Your task to perform on an android device: View the shopping cart on newegg.com. Search for apple airpods pro on newegg.com, select the first entry, and add it to the cart. Image 0: 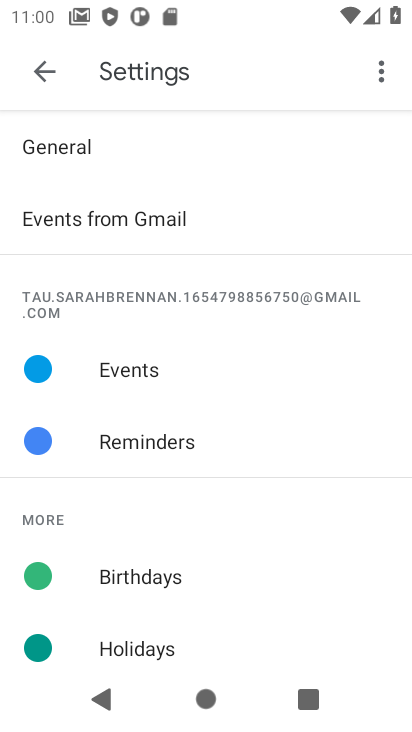
Step 0: press home button
Your task to perform on an android device: View the shopping cart on newegg.com. Search for apple airpods pro on newegg.com, select the first entry, and add it to the cart. Image 1: 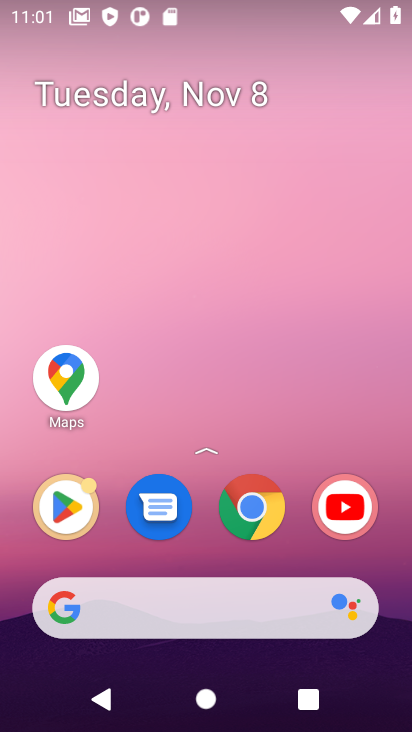
Step 1: click (240, 503)
Your task to perform on an android device: View the shopping cart on newegg.com. Search for apple airpods pro on newegg.com, select the first entry, and add it to the cart. Image 2: 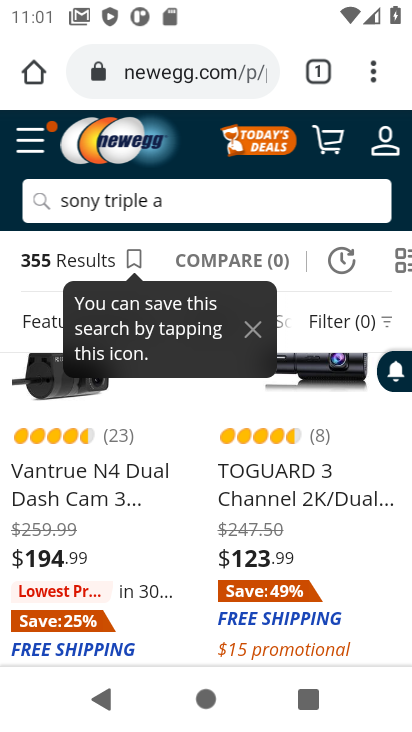
Step 2: click (212, 198)
Your task to perform on an android device: View the shopping cart on newegg.com. Search for apple airpods pro on newegg.com, select the first entry, and add it to the cart. Image 3: 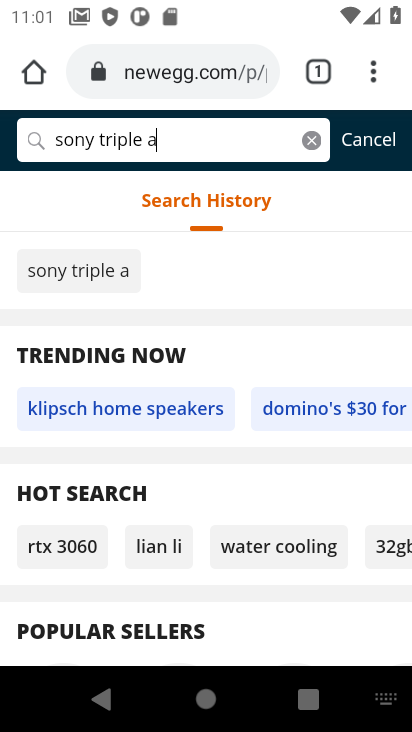
Step 3: click (311, 139)
Your task to perform on an android device: View the shopping cart on newegg.com. Search for apple airpods pro on newegg.com, select the first entry, and add it to the cart. Image 4: 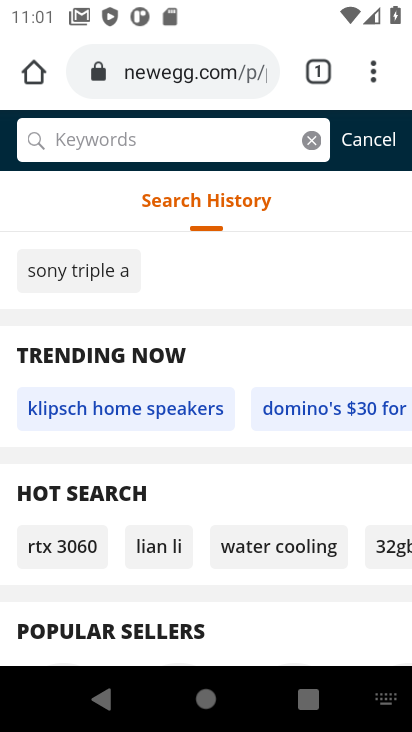
Step 4: type "apple airpods pro"
Your task to perform on an android device: View the shopping cart on newegg.com. Search for apple airpods pro on newegg.com, select the first entry, and add it to the cart. Image 5: 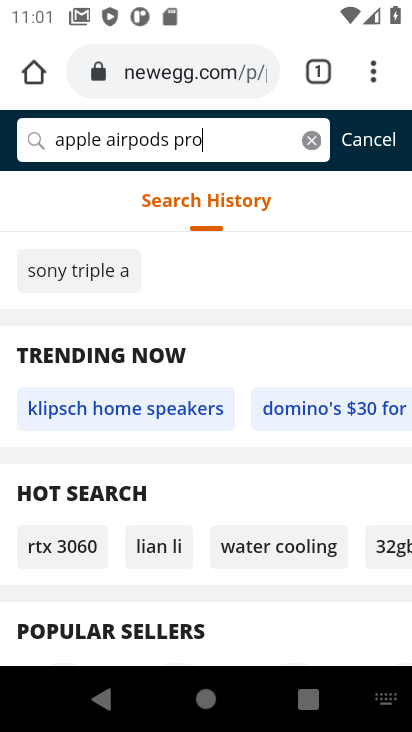
Step 5: press enter
Your task to perform on an android device: View the shopping cart on newegg.com. Search for apple airpods pro on newegg.com, select the first entry, and add it to the cart. Image 6: 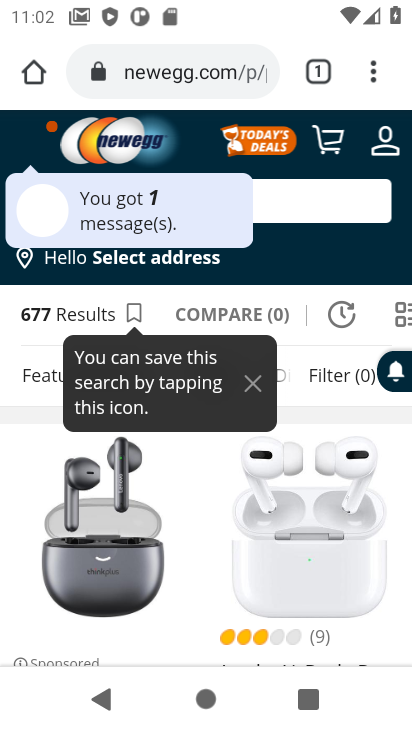
Step 6: drag from (209, 543) to (359, 195)
Your task to perform on an android device: View the shopping cart on newegg.com. Search for apple airpods pro on newegg.com, select the first entry, and add it to the cart. Image 7: 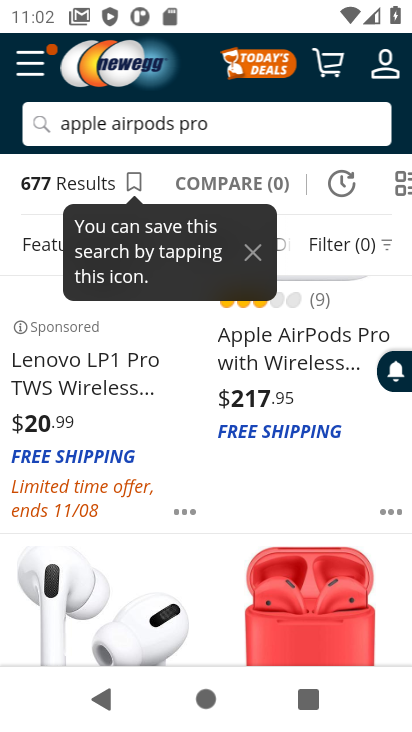
Step 7: click (311, 363)
Your task to perform on an android device: View the shopping cart on newegg.com. Search for apple airpods pro on newegg.com, select the first entry, and add it to the cart. Image 8: 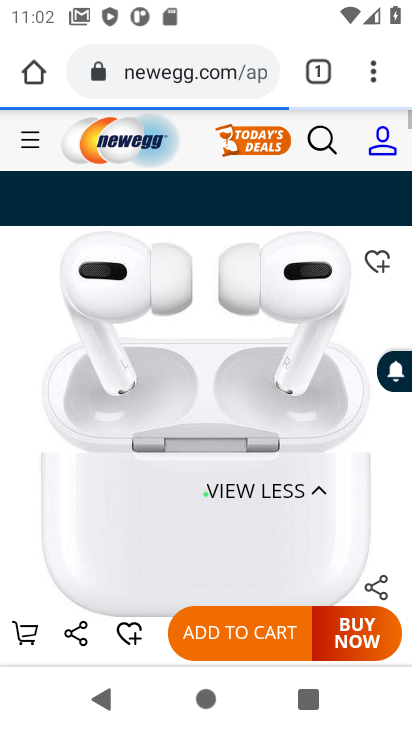
Step 8: drag from (359, 425) to (399, 312)
Your task to perform on an android device: View the shopping cart on newegg.com. Search for apple airpods pro on newegg.com, select the first entry, and add it to the cart. Image 9: 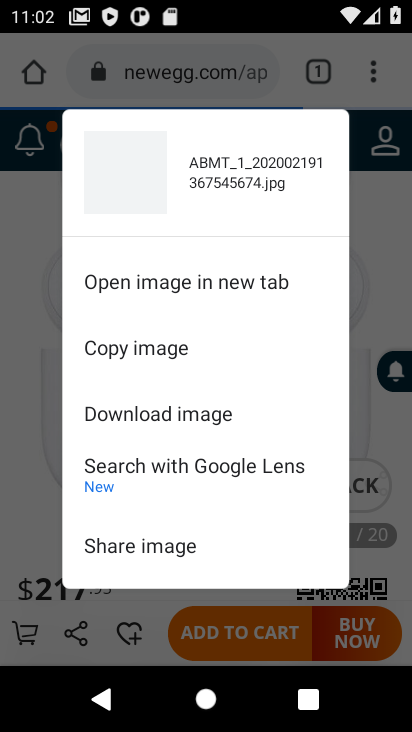
Step 9: drag from (110, 572) to (326, 201)
Your task to perform on an android device: View the shopping cart on newegg.com. Search for apple airpods pro on newegg.com, select the first entry, and add it to the cart. Image 10: 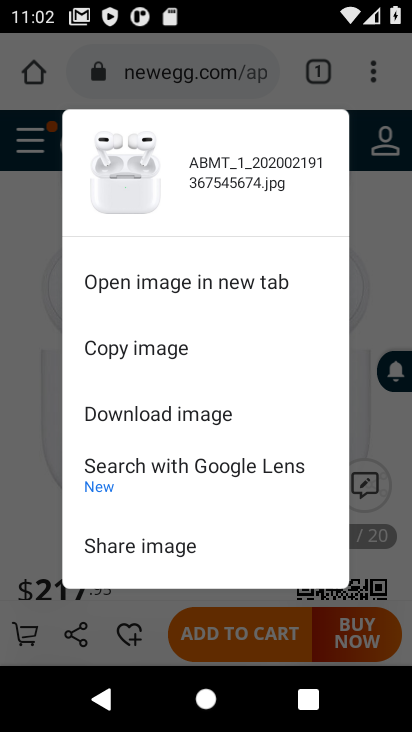
Step 10: click (367, 455)
Your task to perform on an android device: View the shopping cart on newegg.com. Search for apple airpods pro on newegg.com, select the first entry, and add it to the cart. Image 11: 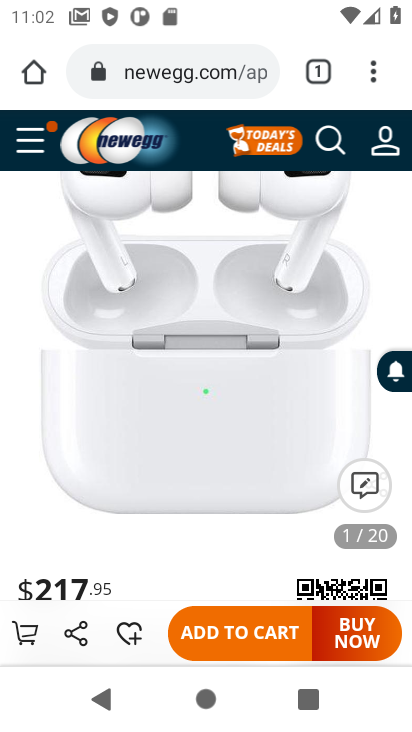
Step 11: drag from (97, 552) to (284, 165)
Your task to perform on an android device: View the shopping cart on newegg.com. Search for apple airpods pro on newegg.com, select the first entry, and add it to the cart. Image 12: 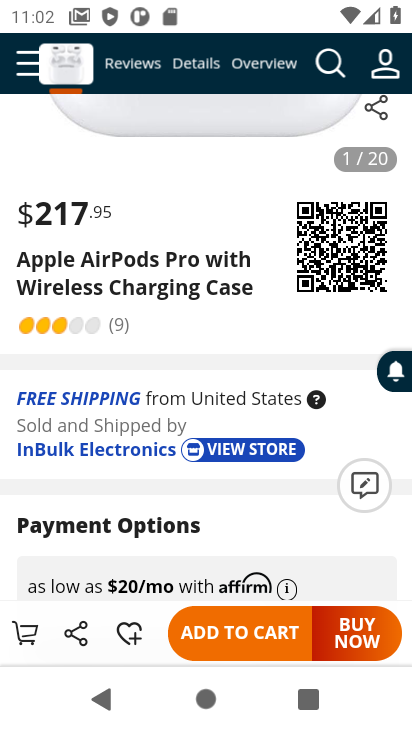
Step 12: drag from (268, 248) to (216, 553)
Your task to perform on an android device: View the shopping cart on newegg.com. Search for apple airpods pro on newegg.com, select the first entry, and add it to the cart. Image 13: 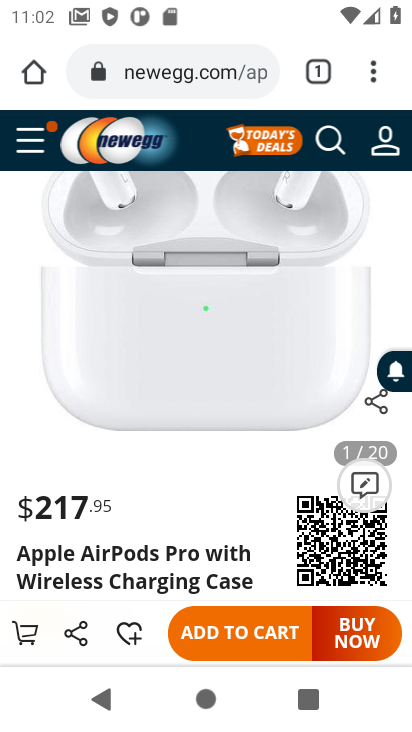
Step 13: press back button
Your task to perform on an android device: View the shopping cart on newegg.com. Search for apple airpods pro on newegg.com, select the first entry, and add it to the cart. Image 14: 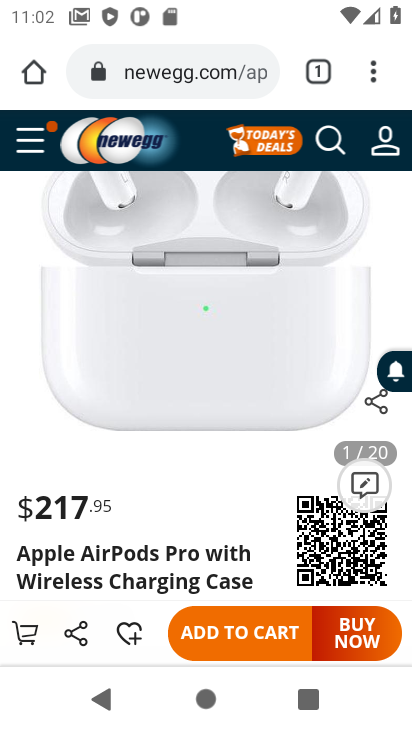
Step 14: press back button
Your task to perform on an android device: View the shopping cart on newegg.com. Search for apple airpods pro on newegg.com, select the first entry, and add it to the cart. Image 15: 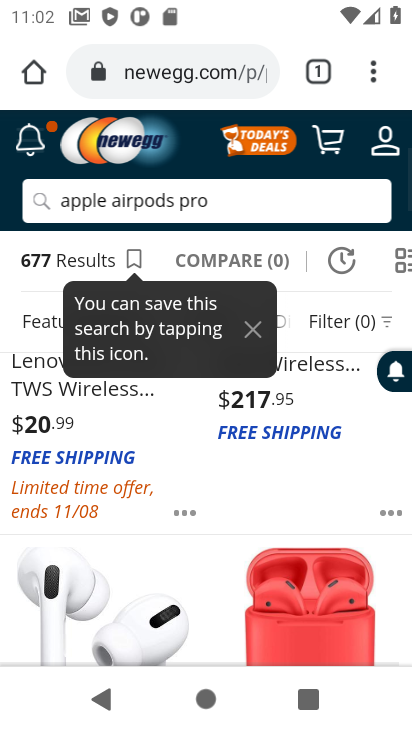
Step 15: drag from (200, 385) to (95, 678)
Your task to perform on an android device: View the shopping cart on newegg.com. Search for apple airpods pro on newegg.com, select the first entry, and add it to the cart. Image 16: 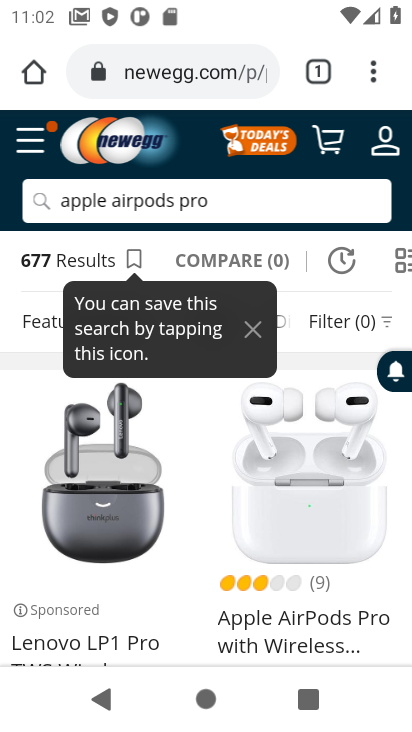
Step 16: click (403, 254)
Your task to perform on an android device: View the shopping cart on newegg.com. Search for apple airpods pro on newegg.com, select the first entry, and add it to the cart. Image 17: 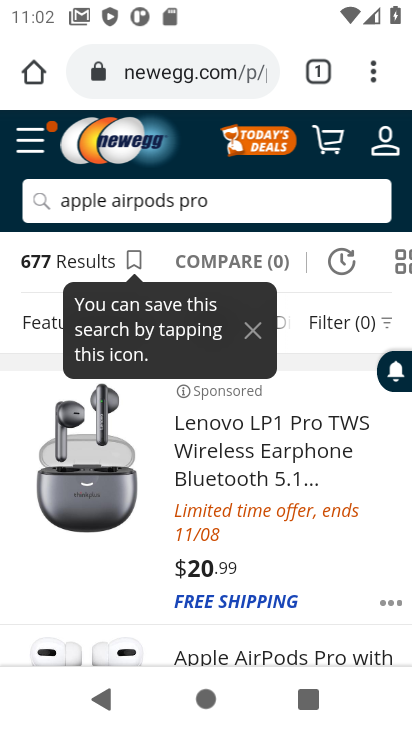
Step 17: click (400, 259)
Your task to perform on an android device: View the shopping cart on newegg.com. Search for apple airpods pro on newegg.com, select the first entry, and add it to the cart. Image 18: 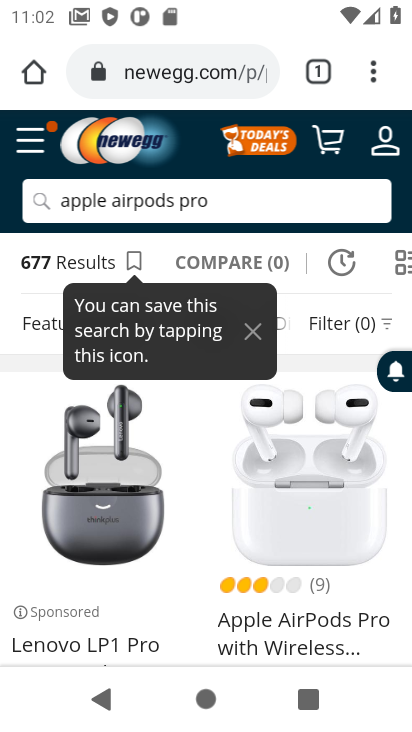
Step 18: task complete